Your task to perform on an android device: Open battery settings Image 0: 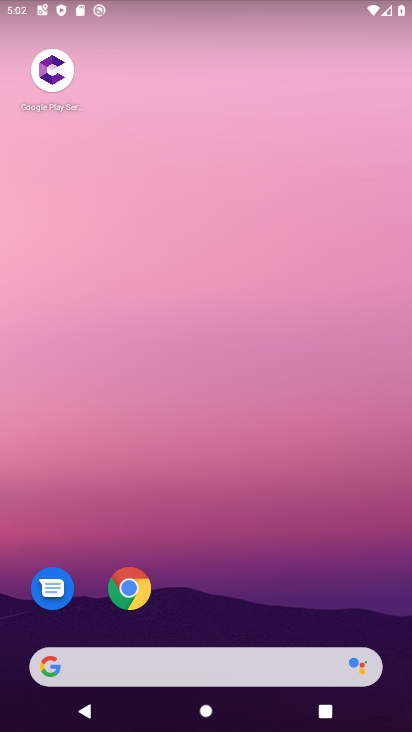
Step 0: drag from (263, 621) to (305, 205)
Your task to perform on an android device: Open battery settings Image 1: 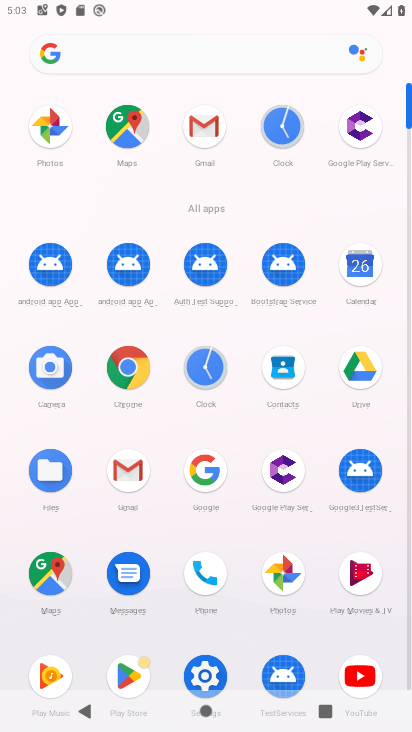
Step 1: drag from (205, 544) to (228, 156)
Your task to perform on an android device: Open battery settings Image 2: 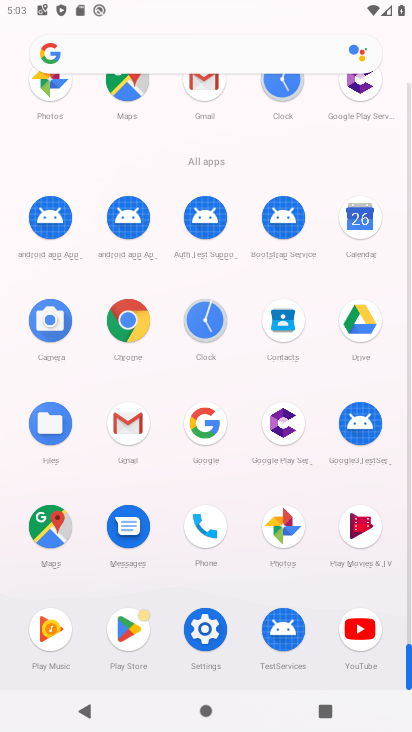
Step 2: click (215, 637)
Your task to perform on an android device: Open battery settings Image 3: 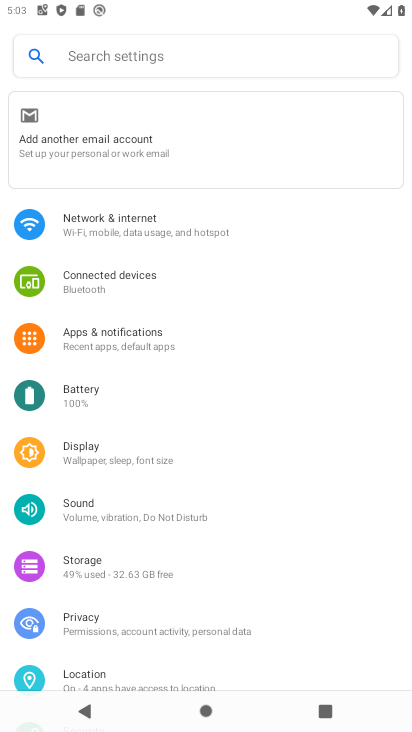
Step 3: click (84, 383)
Your task to perform on an android device: Open battery settings Image 4: 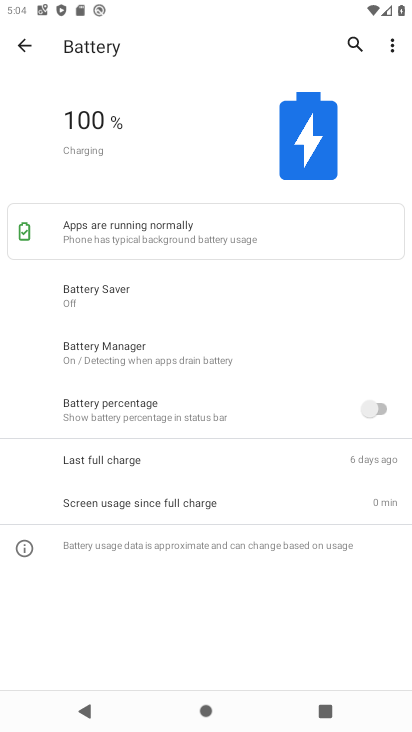
Step 4: task complete